Your task to perform on an android device: Play the last video I watched on Youtube Image 0: 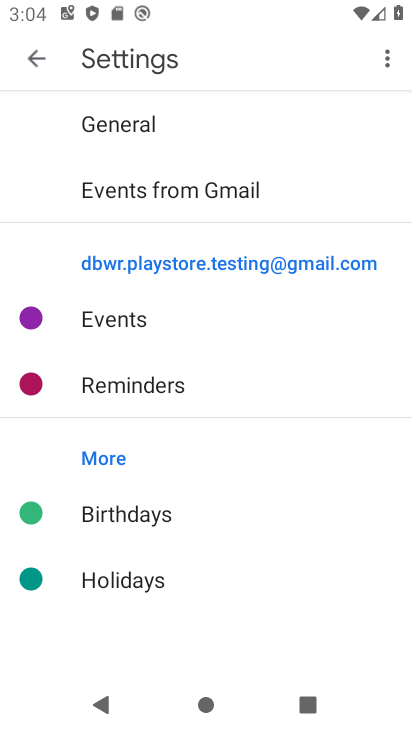
Step 0: press home button
Your task to perform on an android device: Play the last video I watched on Youtube Image 1: 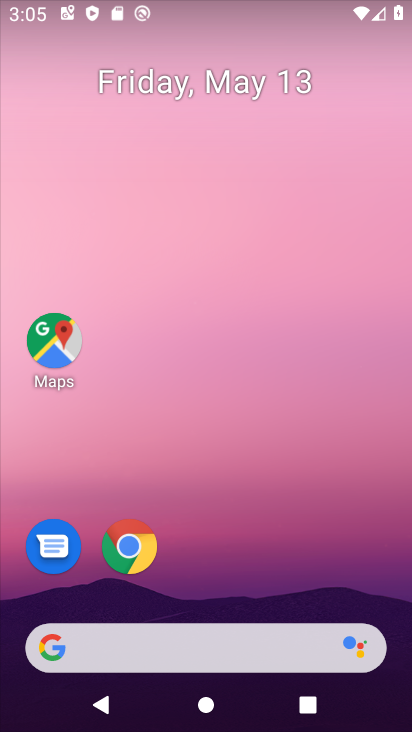
Step 1: drag from (190, 587) to (232, 96)
Your task to perform on an android device: Play the last video I watched on Youtube Image 2: 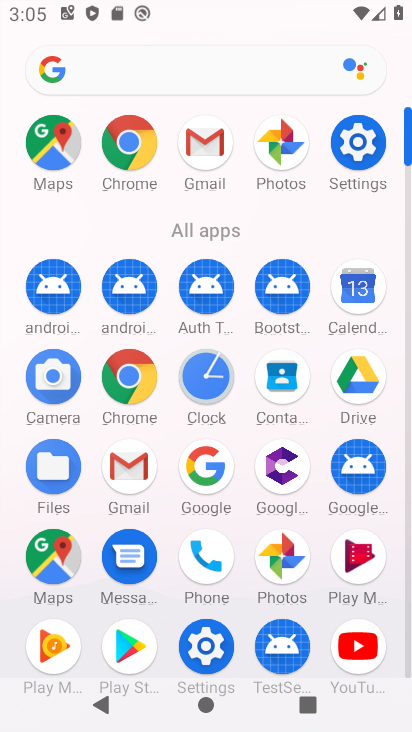
Step 2: click (357, 642)
Your task to perform on an android device: Play the last video I watched on Youtube Image 3: 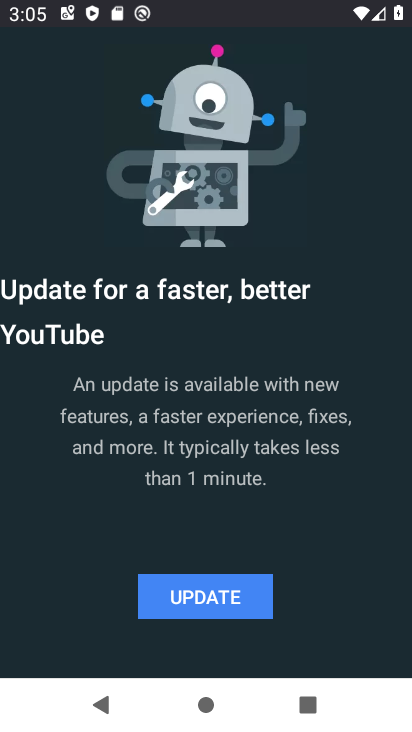
Step 3: click (256, 606)
Your task to perform on an android device: Play the last video I watched on Youtube Image 4: 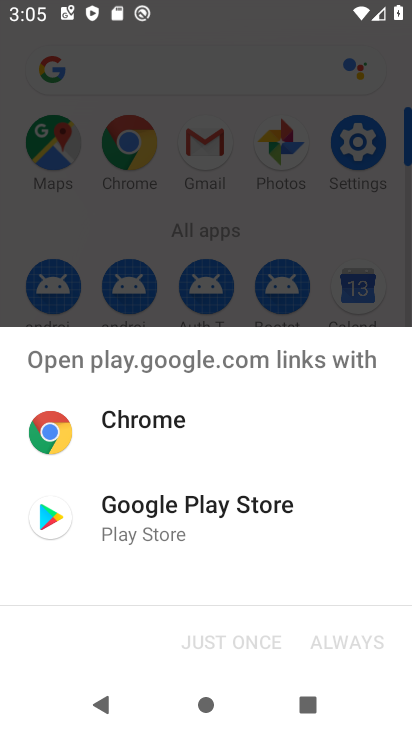
Step 4: click (218, 543)
Your task to perform on an android device: Play the last video I watched on Youtube Image 5: 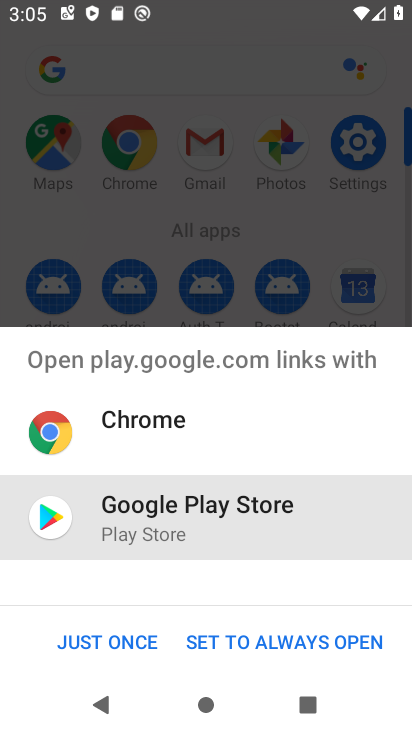
Step 5: click (103, 635)
Your task to perform on an android device: Play the last video I watched on Youtube Image 6: 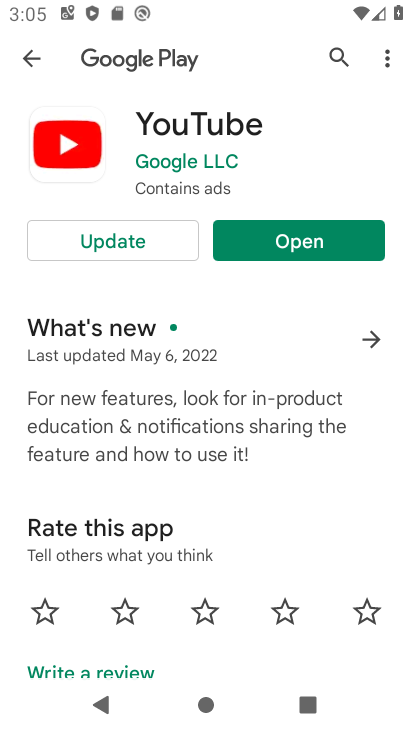
Step 6: click (101, 246)
Your task to perform on an android device: Play the last video I watched on Youtube Image 7: 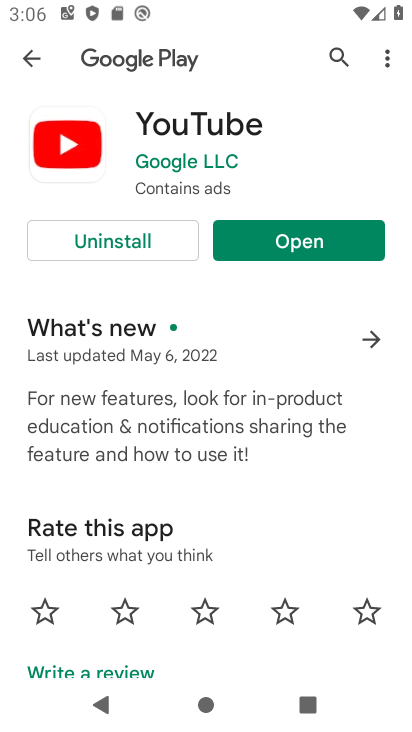
Step 7: click (301, 244)
Your task to perform on an android device: Play the last video I watched on Youtube Image 8: 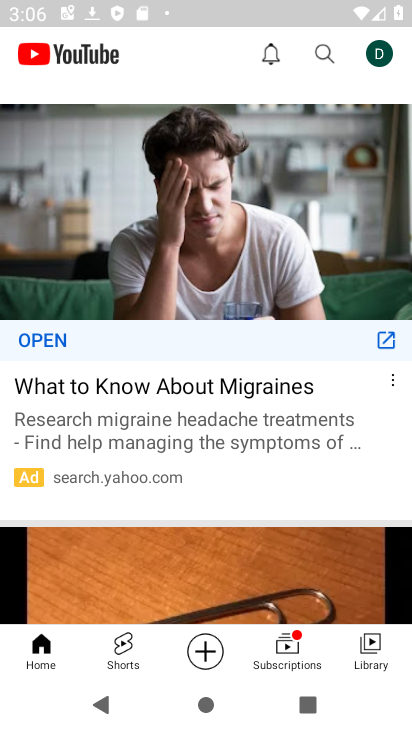
Step 8: task complete